Your task to perform on an android device: What is the news today? Image 0: 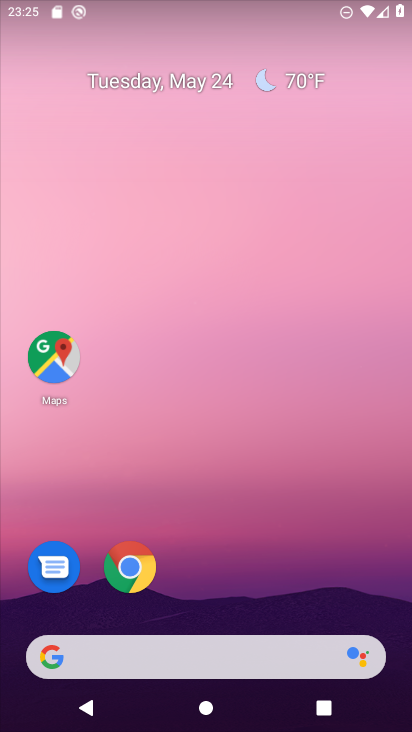
Step 0: drag from (255, 354) to (222, 55)
Your task to perform on an android device: What is the news today? Image 1: 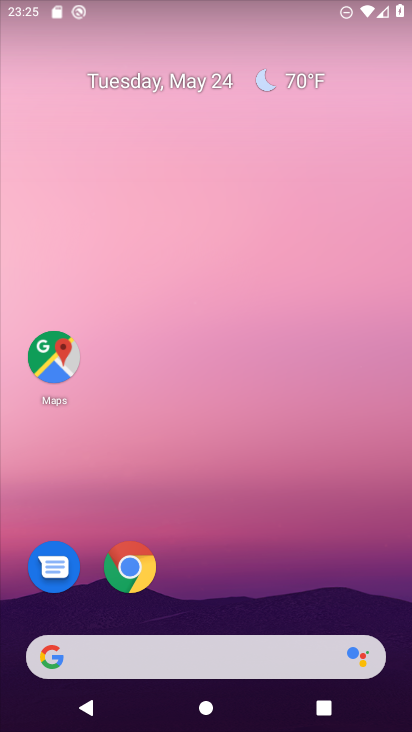
Step 1: drag from (306, 571) to (162, 22)
Your task to perform on an android device: What is the news today? Image 2: 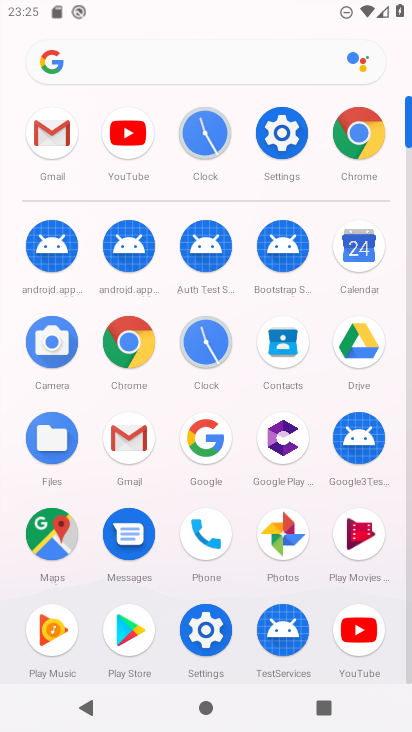
Step 2: click (196, 439)
Your task to perform on an android device: What is the news today? Image 3: 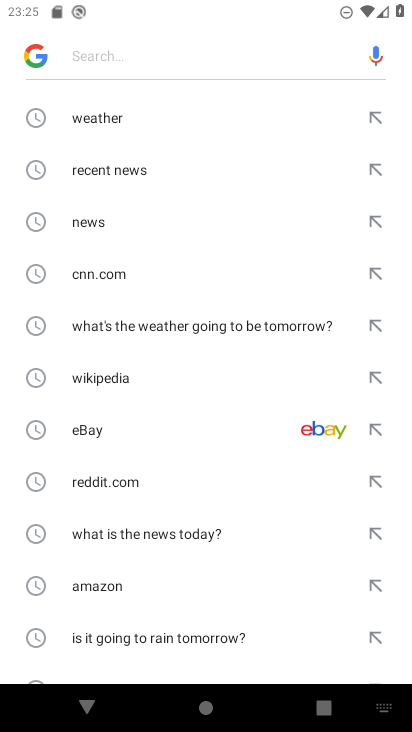
Step 3: click (191, 58)
Your task to perform on an android device: What is the news today? Image 4: 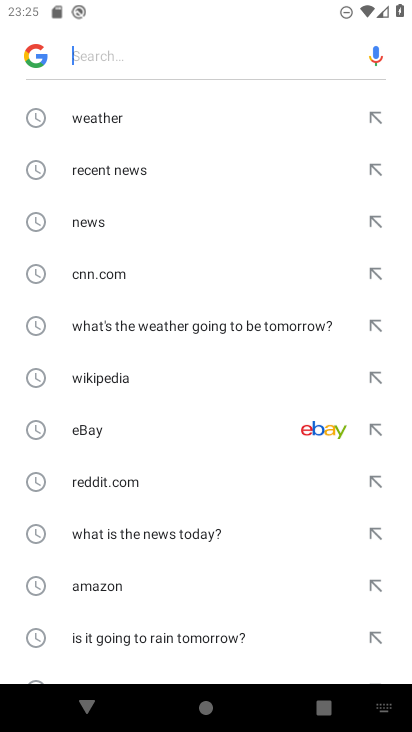
Step 4: click (147, 223)
Your task to perform on an android device: What is the news today? Image 5: 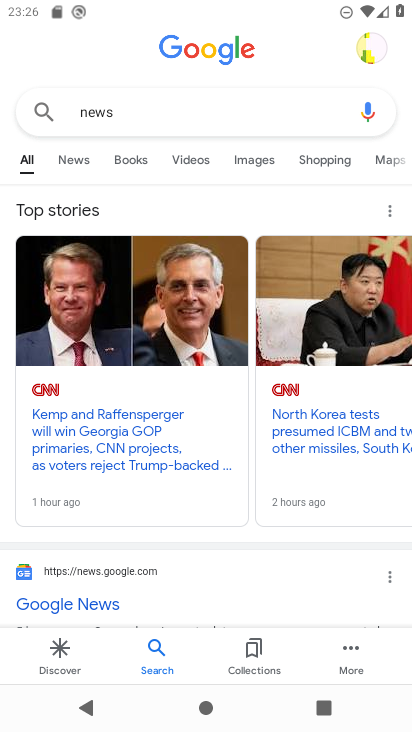
Step 5: task complete